Your task to perform on an android device: Add jbl charge 4 to the cart on amazon.com Image 0: 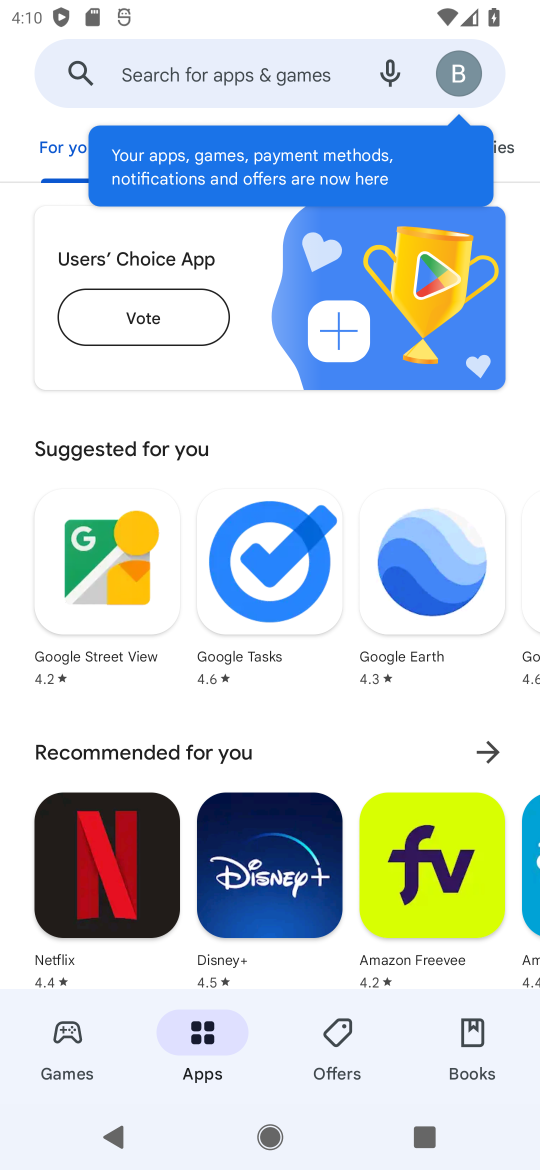
Step 0: press home button
Your task to perform on an android device: Add jbl charge 4 to the cart on amazon.com Image 1: 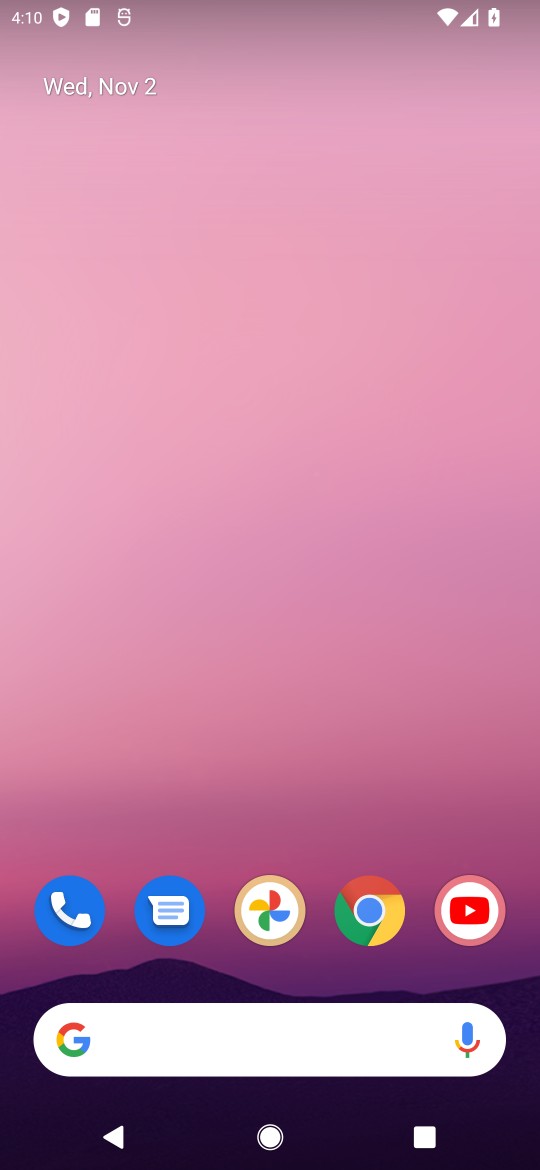
Step 1: click (368, 913)
Your task to perform on an android device: Add jbl charge 4 to the cart on amazon.com Image 2: 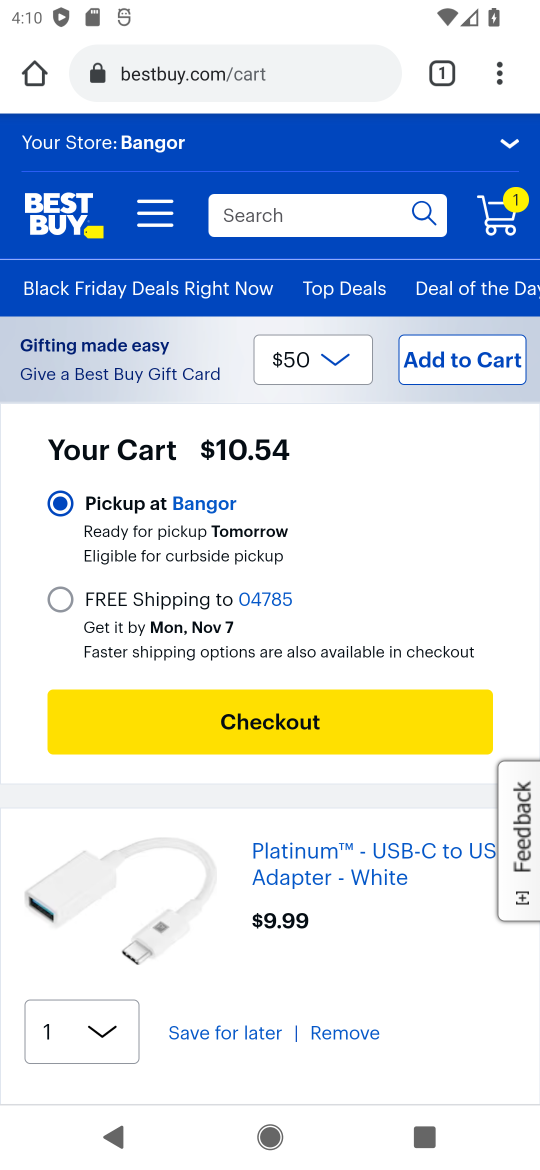
Step 2: click (293, 72)
Your task to perform on an android device: Add jbl charge 4 to the cart on amazon.com Image 3: 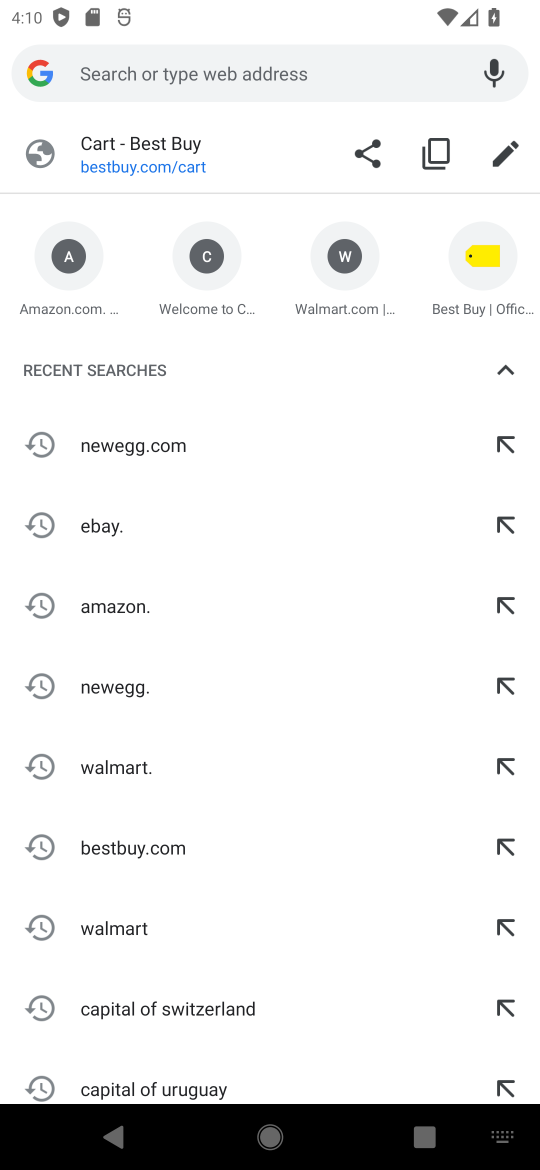
Step 3: type "amazon.com"
Your task to perform on an android device: Add jbl charge 4 to the cart on amazon.com Image 4: 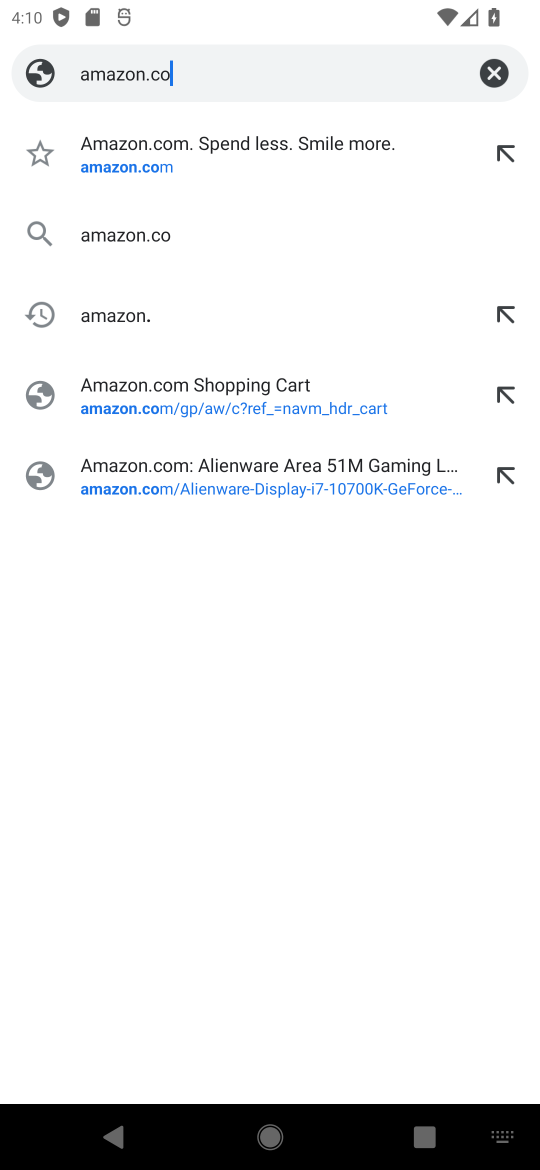
Step 4: type ""
Your task to perform on an android device: Add jbl charge 4 to the cart on amazon.com Image 5: 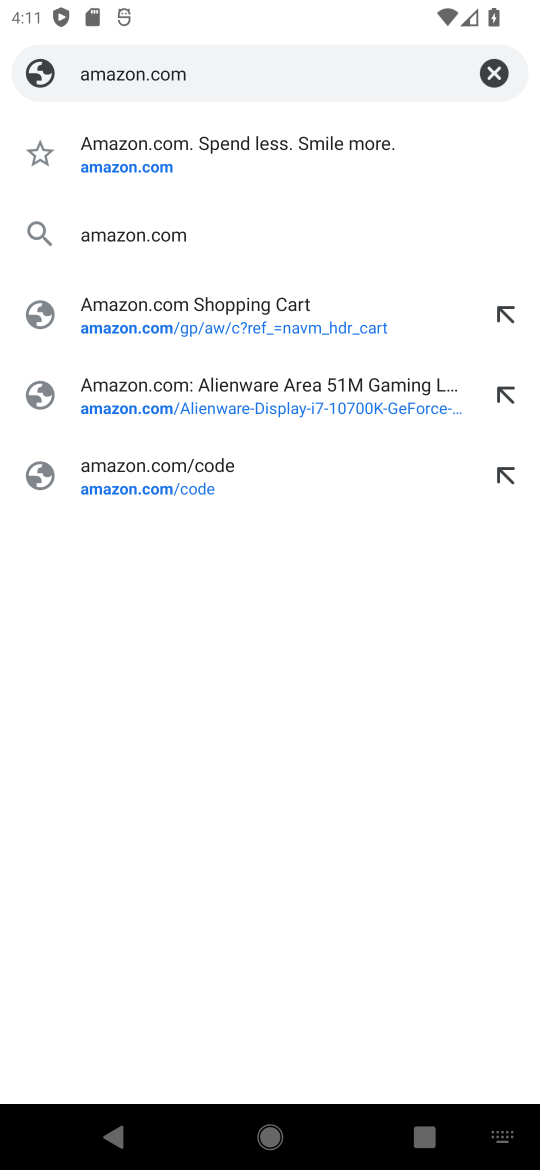
Step 5: click (278, 168)
Your task to perform on an android device: Add jbl charge 4 to the cart on amazon.com Image 6: 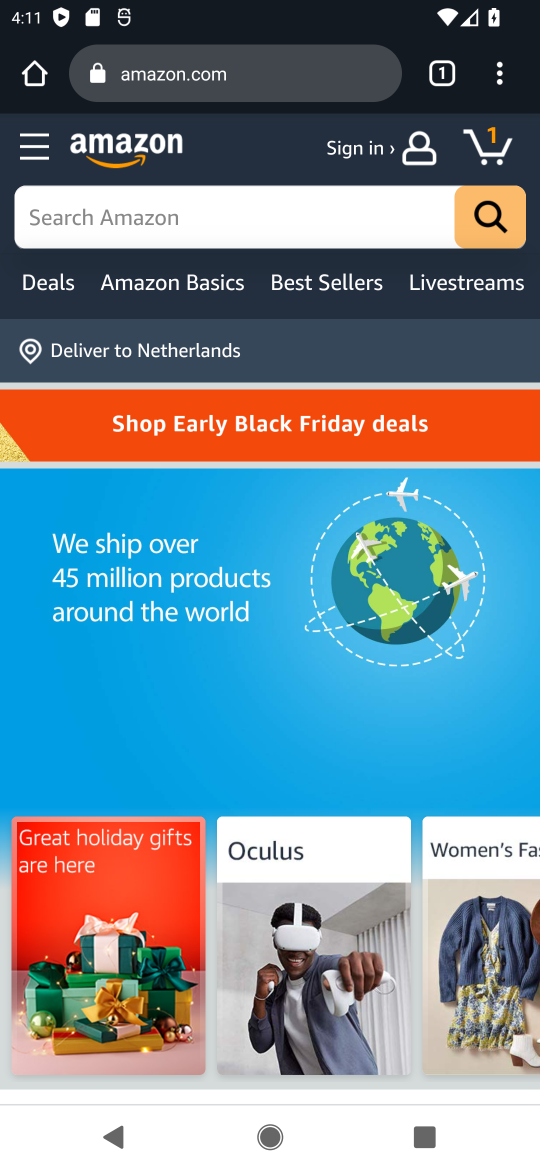
Step 6: click (270, 216)
Your task to perform on an android device: Add jbl charge 4 to the cart on amazon.com Image 7: 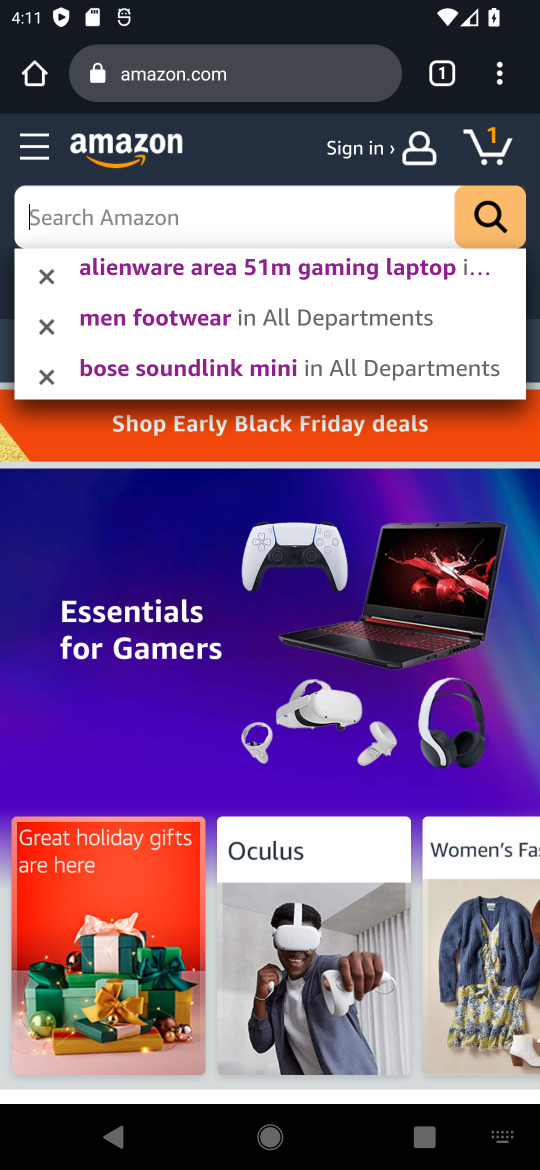
Step 7: type "jbl charge 4"
Your task to perform on an android device: Add jbl charge 4 to the cart on amazon.com Image 8: 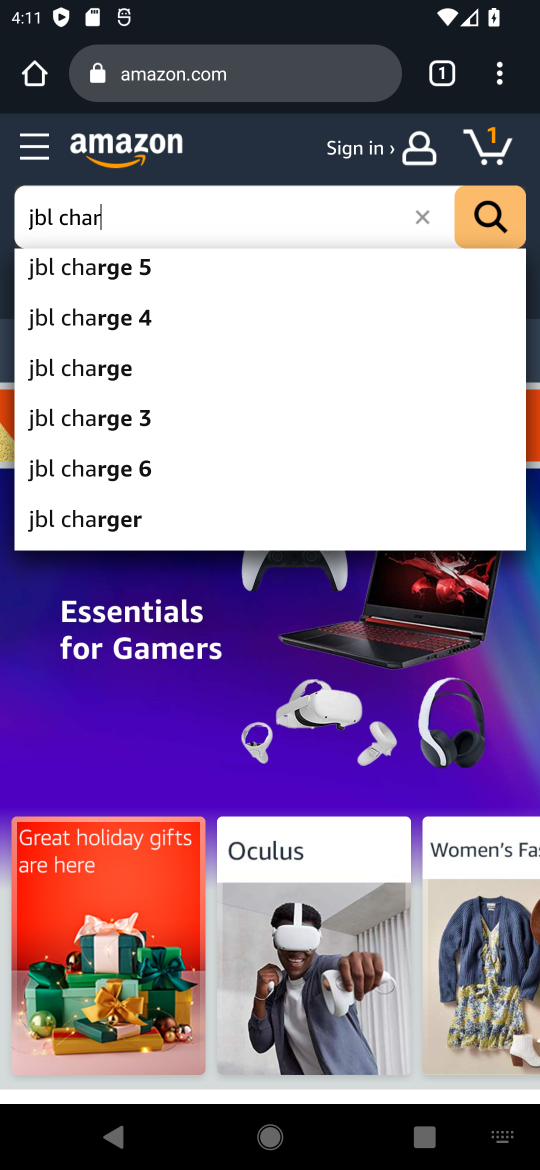
Step 8: type ""
Your task to perform on an android device: Add jbl charge 4 to the cart on amazon.com Image 9: 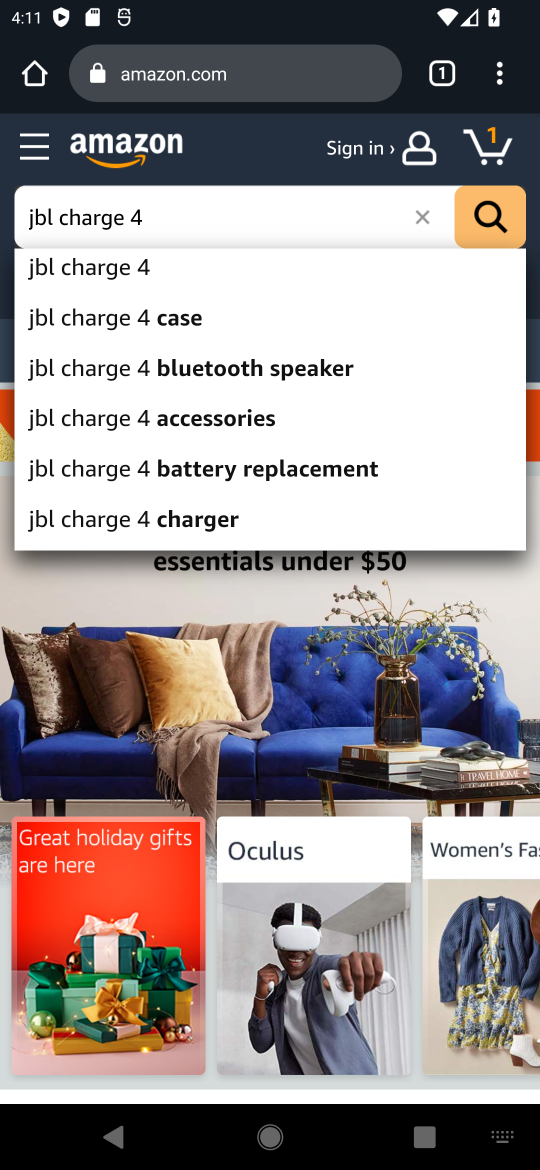
Step 9: click (140, 260)
Your task to perform on an android device: Add jbl charge 4 to the cart on amazon.com Image 10: 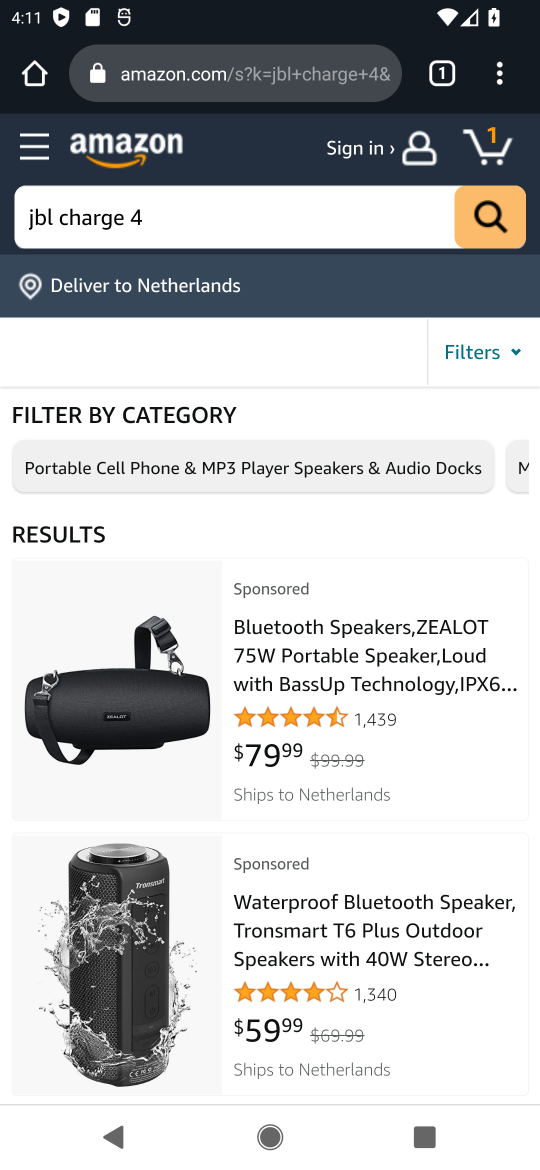
Step 10: drag from (285, 824) to (371, 465)
Your task to perform on an android device: Add jbl charge 4 to the cart on amazon.com Image 11: 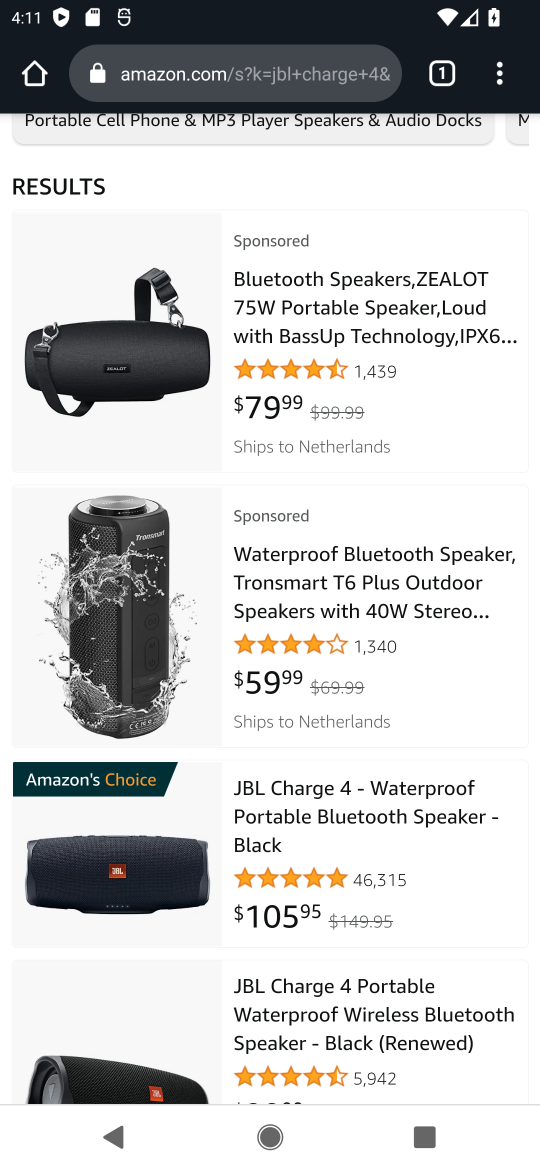
Step 11: click (374, 836)
Your task to perform on an android device: Add jbl charge 4 to the cart on amazon.com Image 12: 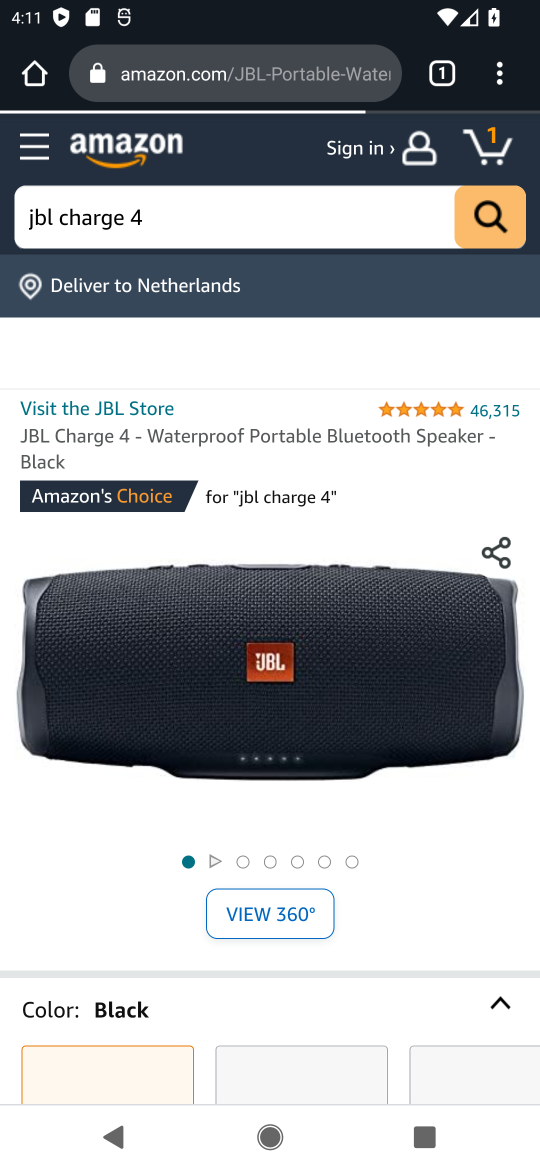
Step 12: drag from (374, 867) to (390, 416)
Your task to perform on an android device: Add jbl charge 4 to the cart on amazon.com Image 13: 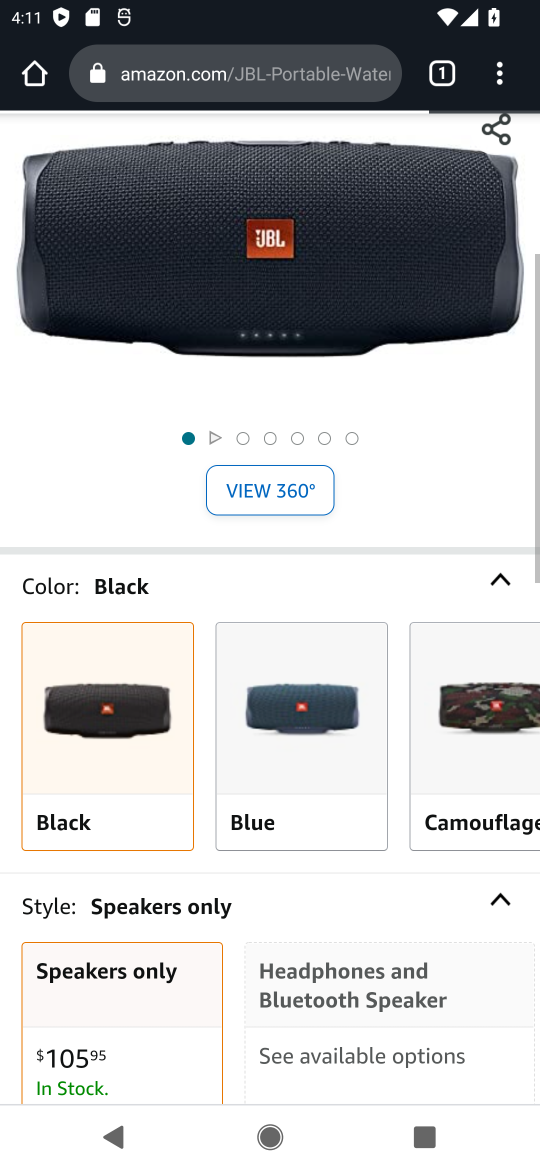
Step 13: drag from (287, 879) to (406, 351)
Your task to perform on an android device: Add jbl charge 4 to the cart on amazon.com Image 14: 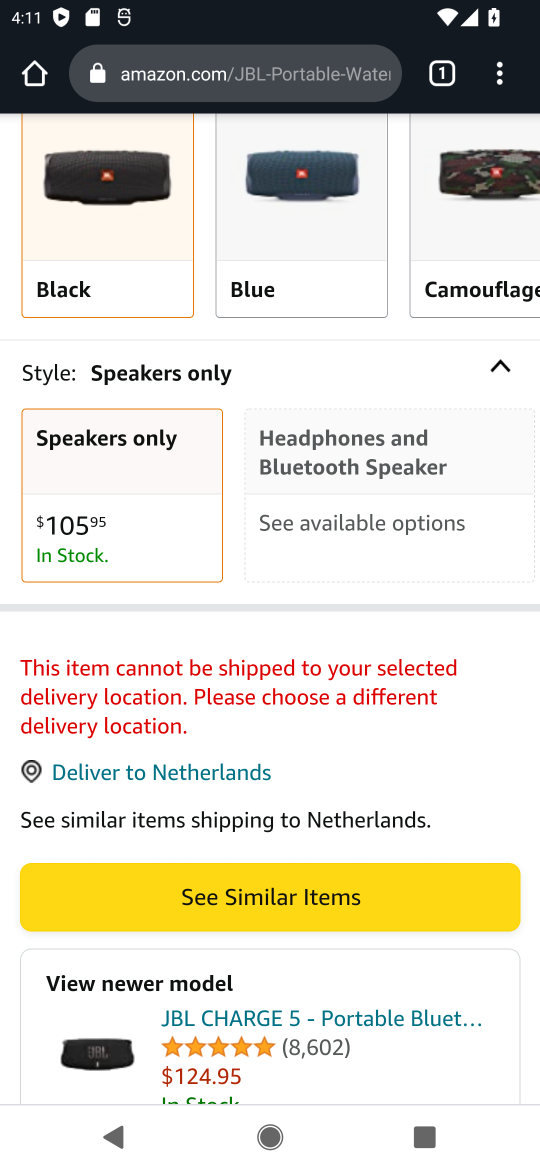
Step 14: drag from (330, 837) to (413, 303)
Your task to perform on an android device: Add jbl charge 4 to the cart on amazon.com Image 15: 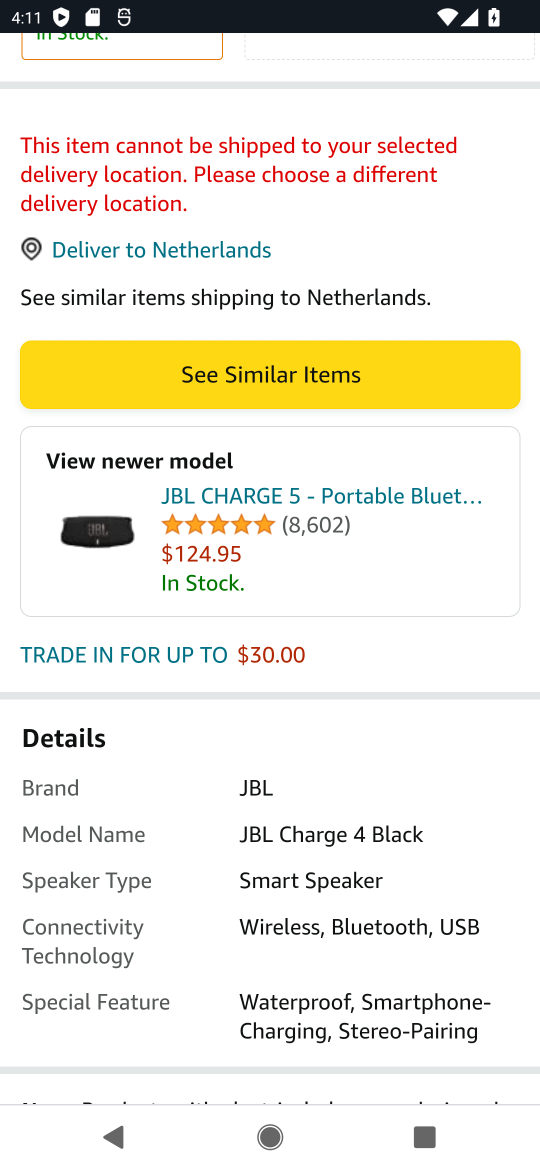
Step 15: click (314, 387)
Your task to perform on an android device: Add jbl charge 4 to the cart on amazon.com Image 16: 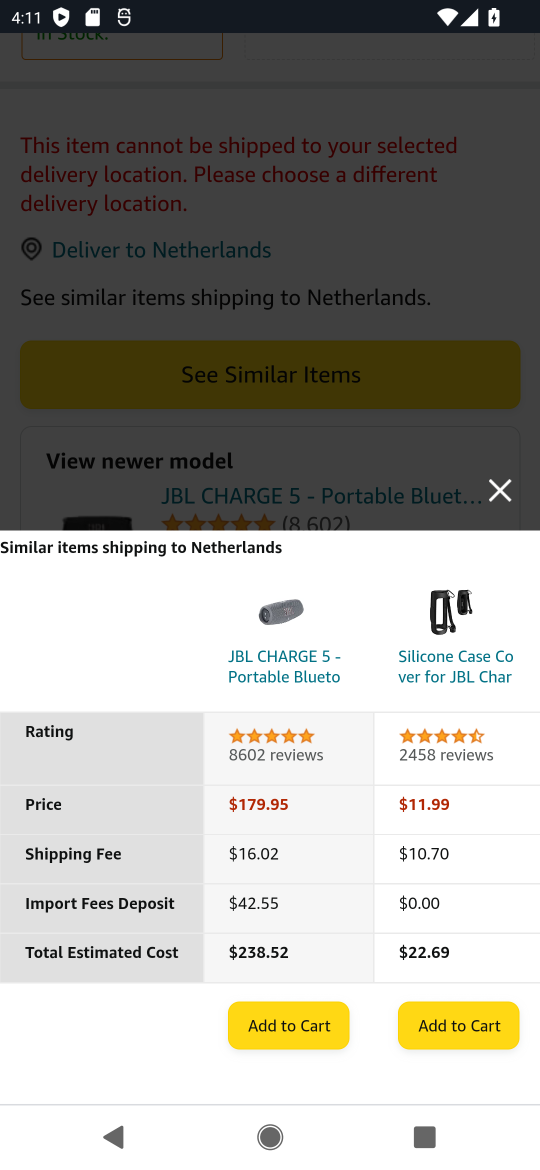
Step 16: drag from (509, 881) to (105, 860)
Your task to perform on an android device: Add jbl charge 4 to the cart on amazon.com Image 17: 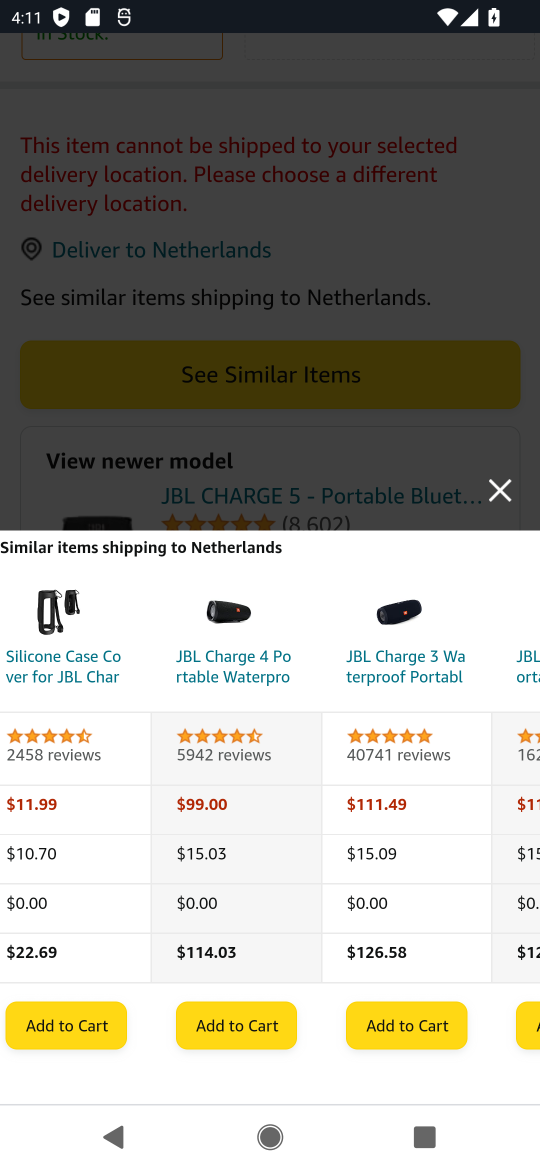
Step 17: click (223, 1016)
Your task to perform on an android device: Add jbl charge 4 to the cart on amazon.com Image 18: 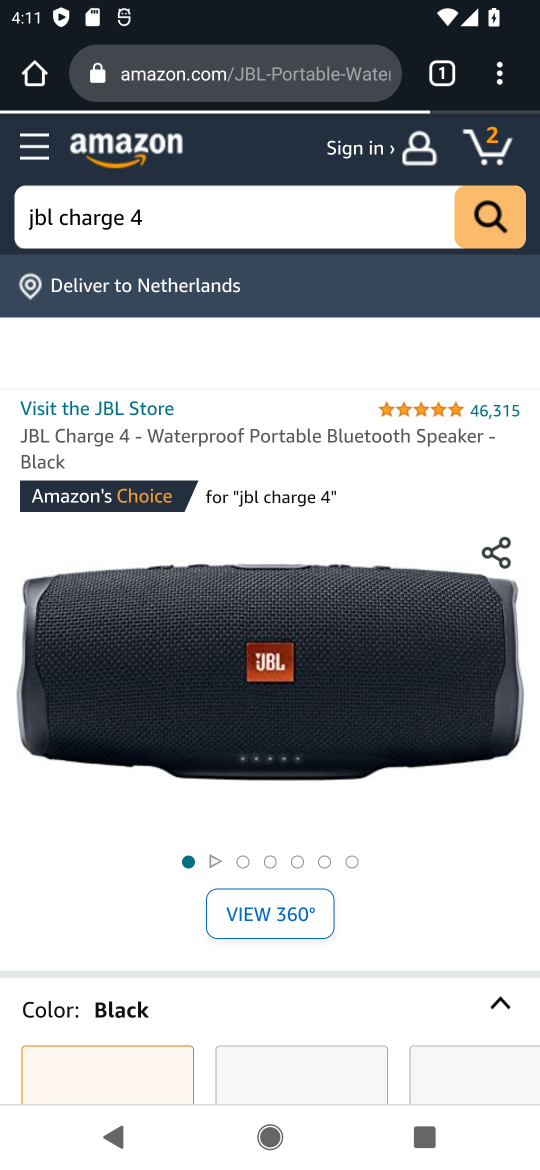
Step 18: click (477, 136)
Your task to perform on an android device: Add jbl charge 4 to the cart on amazon.com Image 19: 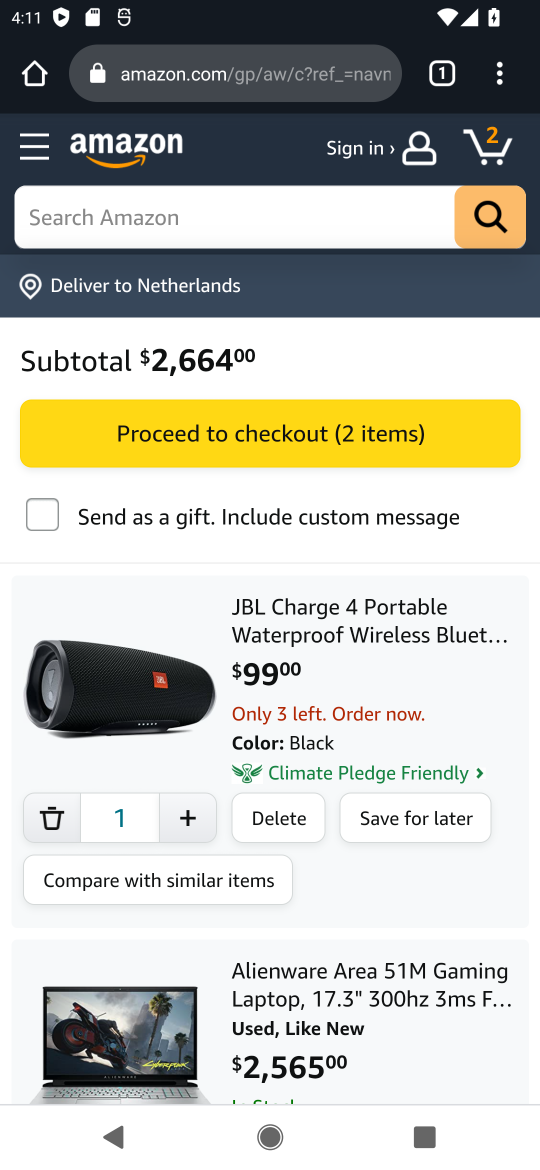
Step 19: click (221, 439)
Your task to perform on an android device: Add jbl charge 4 to the cart on amazon.com Image 20: 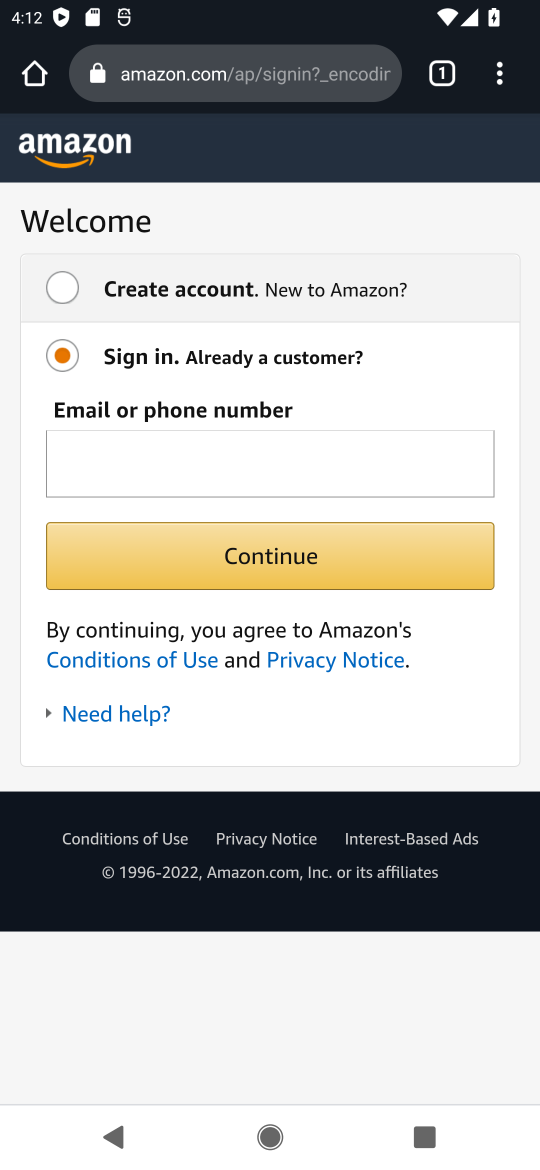
Step 20: task complete